Your task to perform on an android device: find which apps use the phone's location Image 0: 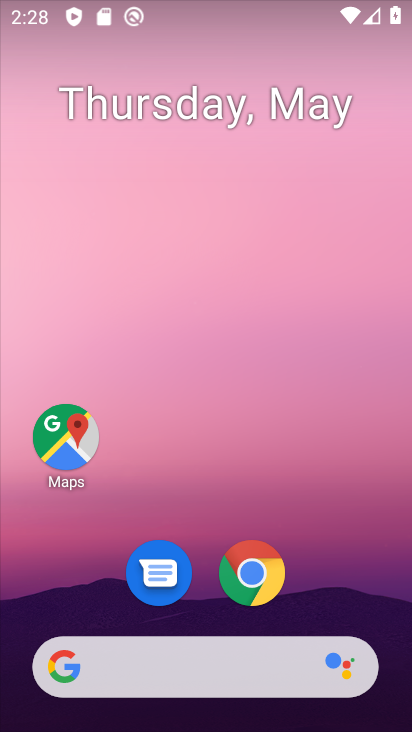
Step 0: click (228, 237)
Your task to perform on an android device: find which apps use the phone's location Image 1: 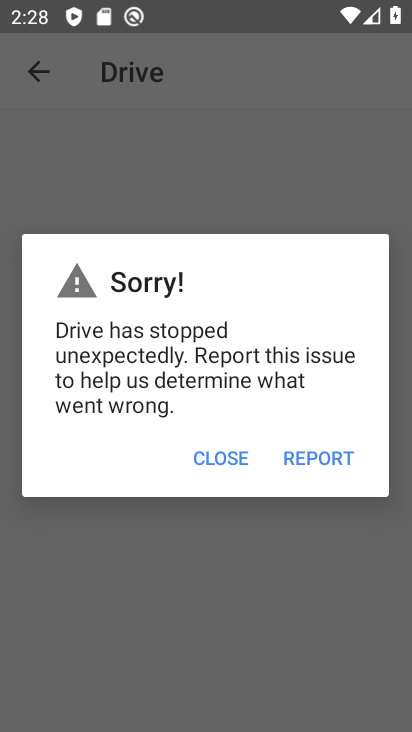
Step 1: click (239, 460)
Your task to perform on an android device: find which apps use the phone's location Image 2: 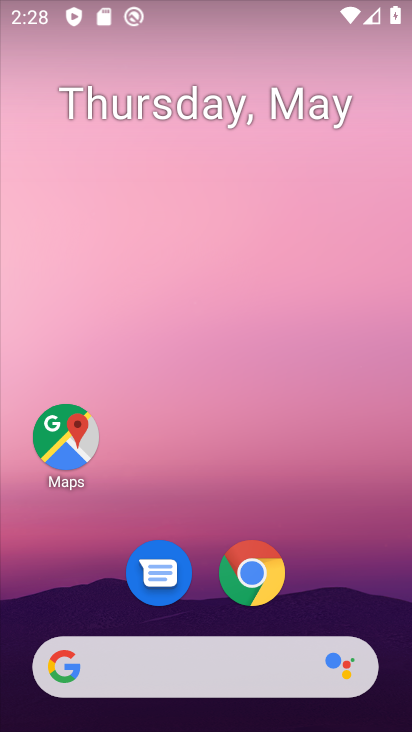
Step 2: drag from (209, 630) to (265, 208)
Your task to perform on an android device: find which apps use the phone's location Image 3: 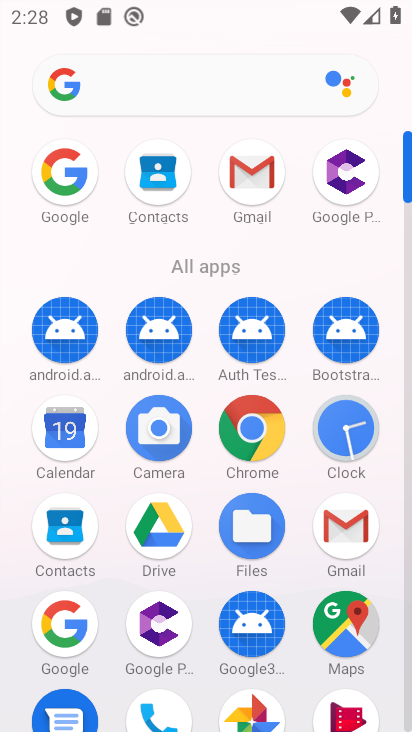
Step 3: drag from (200, 688) to (213, 324)
Your task to perform on an android device: find which apps use the phone's location Image 4: 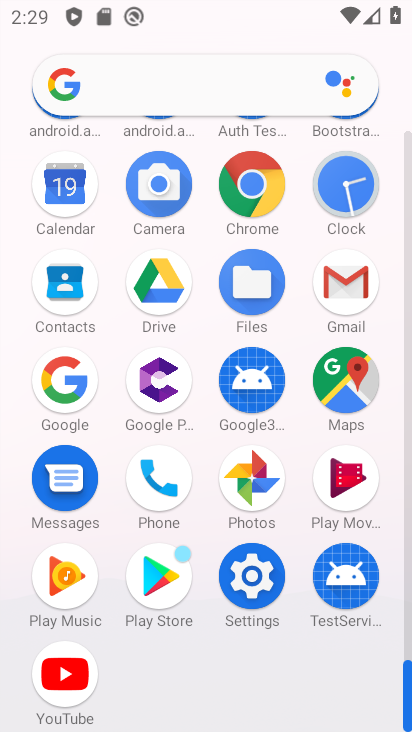
Step 4: click (259, 580)
Your task to perform on an android device: find which apps use the phone's location Image 5: 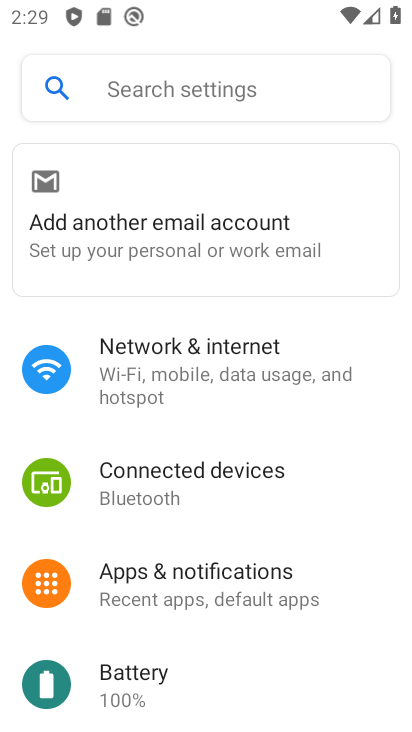
Step 5: drag from (227, 675) to (215, 328)
Your task to perform on an android device: find which apps use the phone's location Image 6: 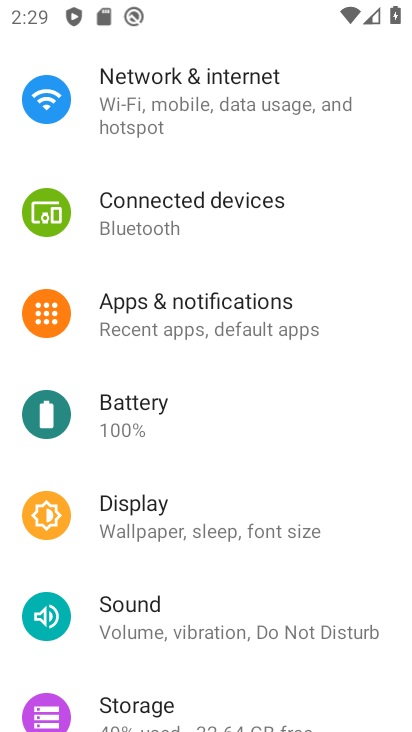
Step 6: drag from (181, 715) to (184, 435)
Your task to perform on an android device: find which apps use the phone's location Image 7: 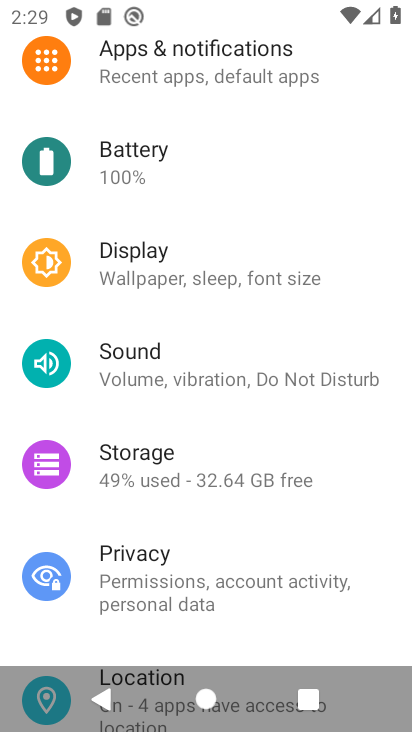
Step 7: drag from (167, 649) to (192, 421)
Your task to perform on an android device: find which apps use the phone's location Image 8: 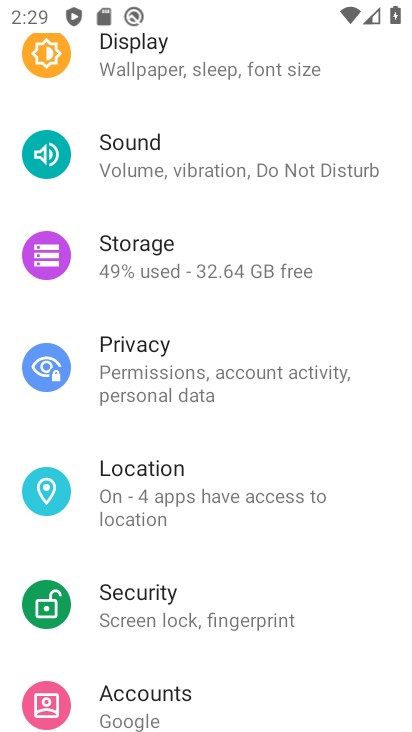
Step 8: click (162, 499)
Your task to perform on an android device: find which apps use the phone's location Image 9: 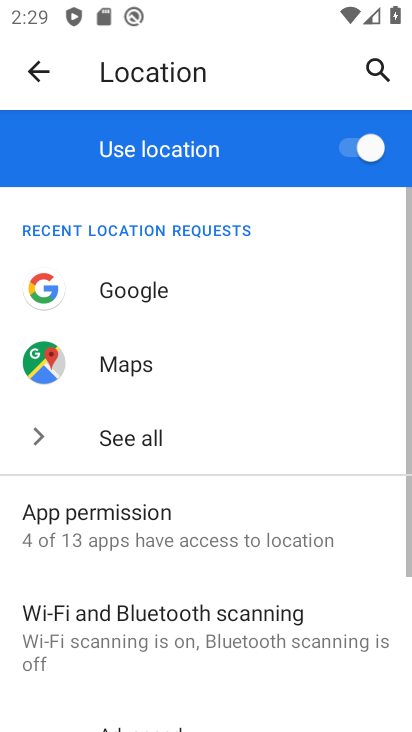
Step 9: click (104, 526)
Your task to perform on an android device: find which apps use the phone's location Image 10: 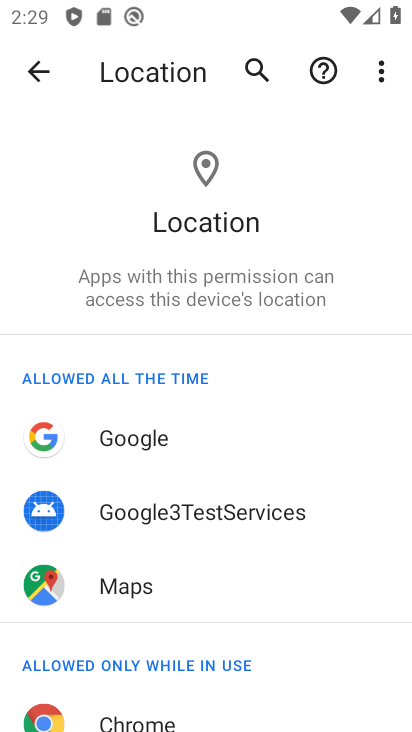
Step 10: task complete